Your task to perform on an android device: turn on airplane mode Image 0: 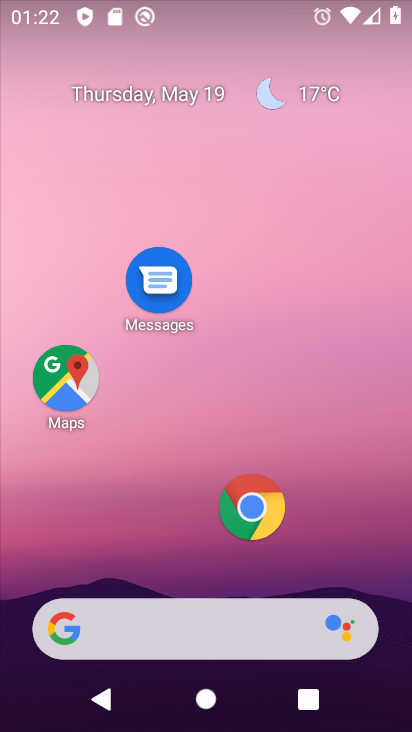
Step 0: drag from (162, 595) to (209, 126)
Your task to perform on an android device: turn on airplane mode Image 1: 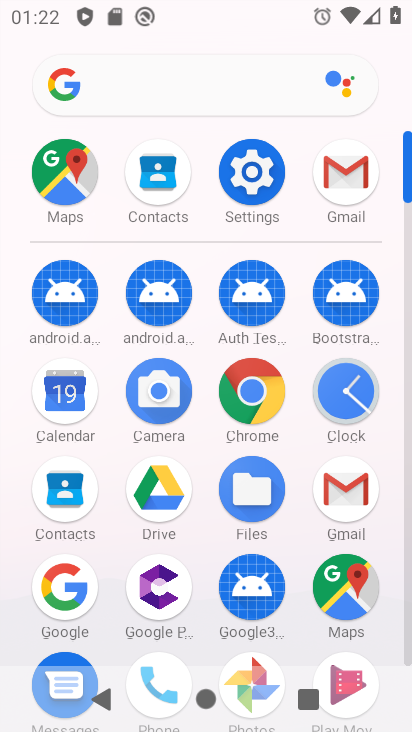
Step 1: click (243, 192)
Your task to perform on an android device: turn on airplane mode Image 2: 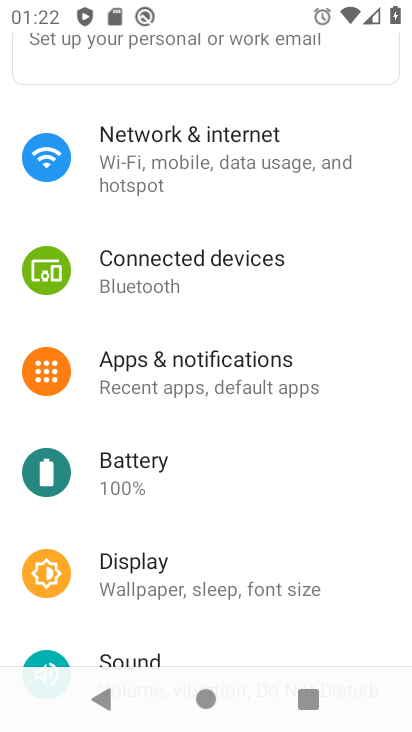
Step 2: click (212, 162)
Your task to perform on an android device: turn on airplane mode Image 3: 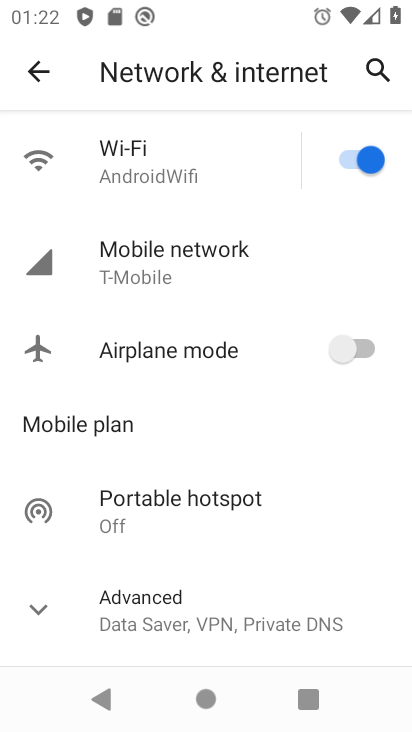
Step 3: click (362, 350)
Your task to perform on an android device: turn on airplane mode Image 4: 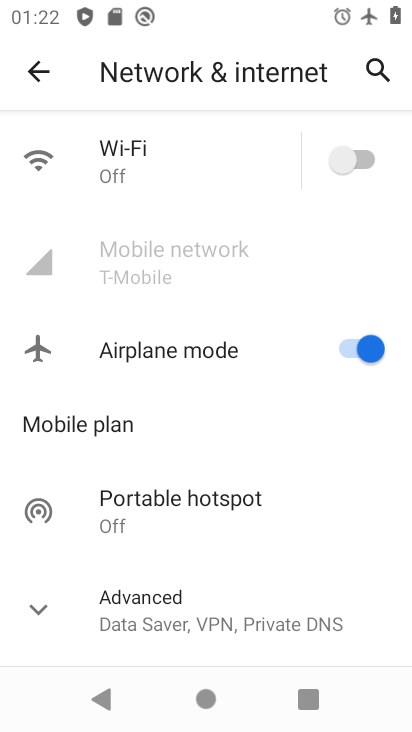
Step 4: task complete